Your task to perform on an android device: What's the news in Venezuela? Image 0: 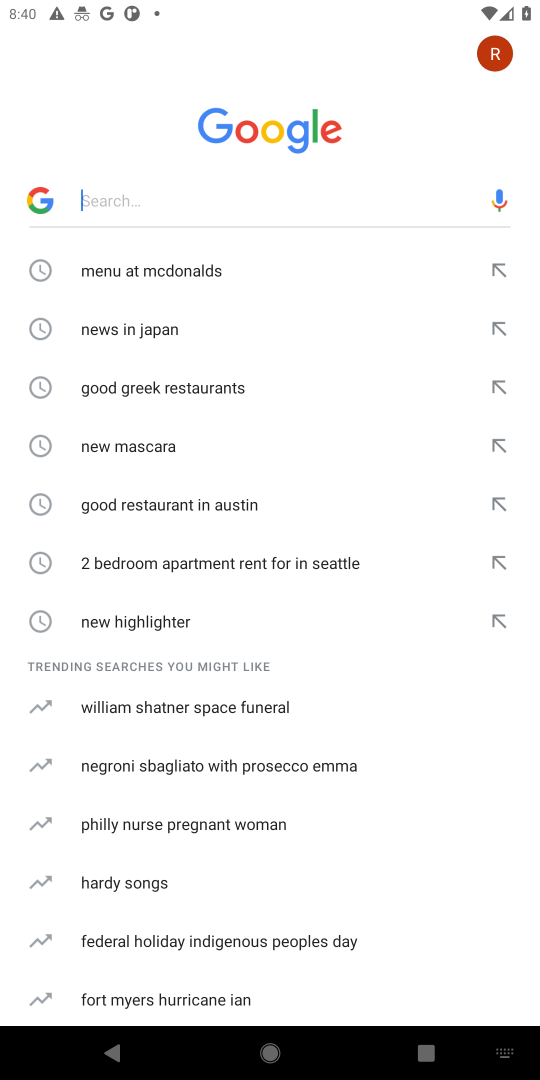
Step 0: press home button
Your task to perform on an android device: What's the news in Venezuela? Image 1: 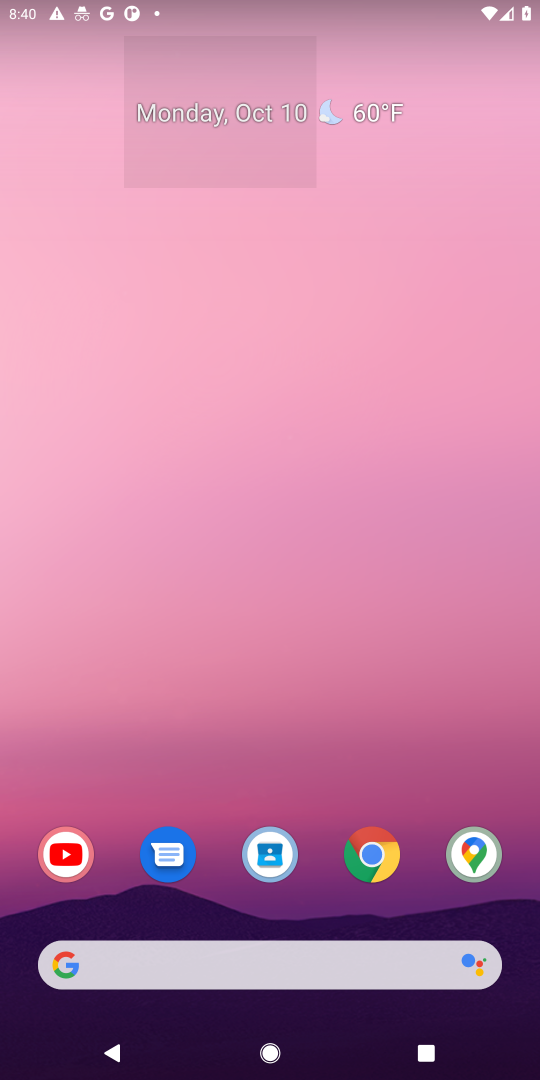
Step 1: click (372, 851)
Your task to perform on an android device: What's the news in Venezuela? Image 2: 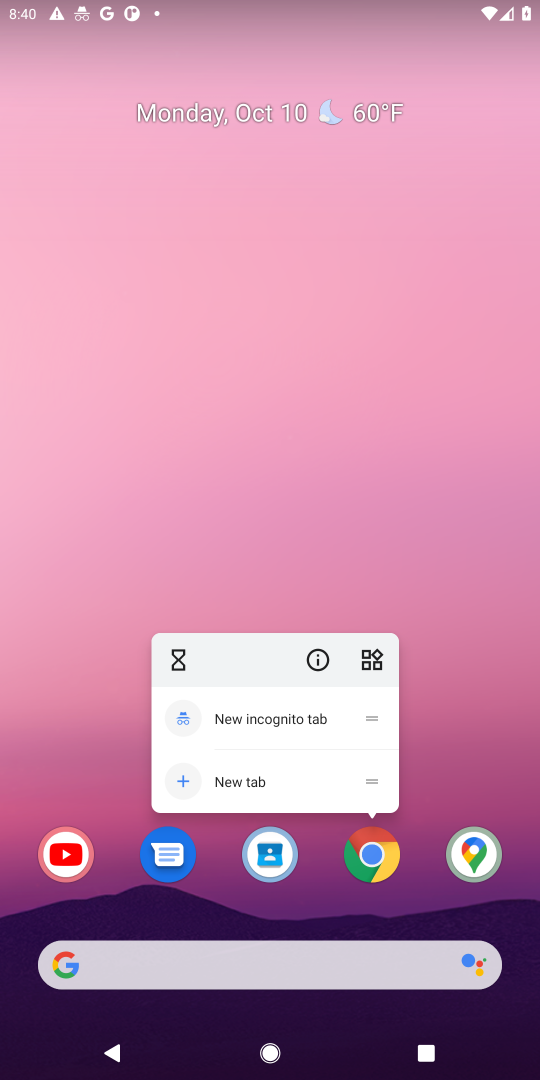
Step 2: click (372, 851)
Your task to perform on an android device: What's the news in Venezuela? Image 3: 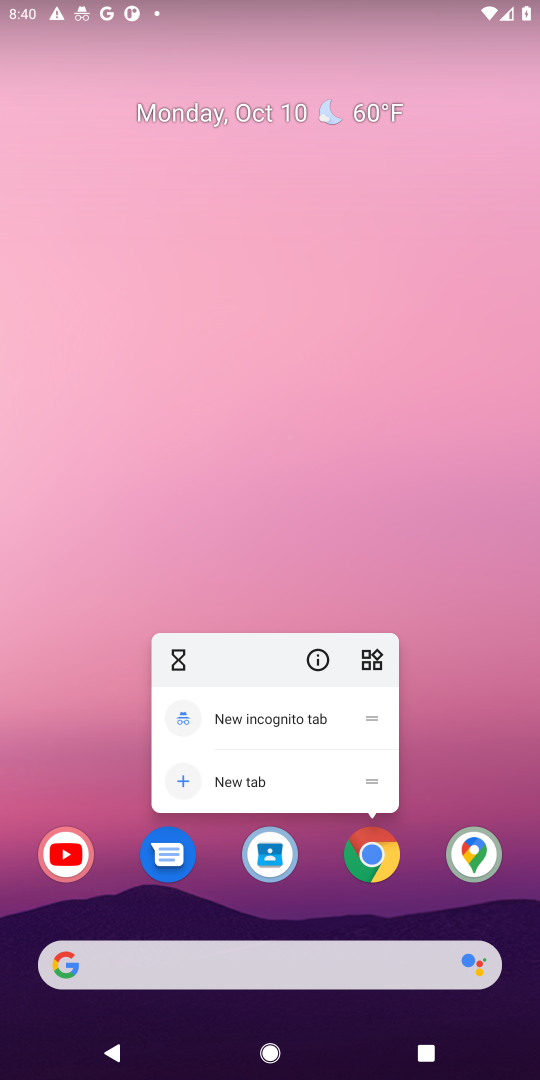
Step 3: click (374, 847)
Your task to perform on an android device: What's the news in Venezuela? Image 4: 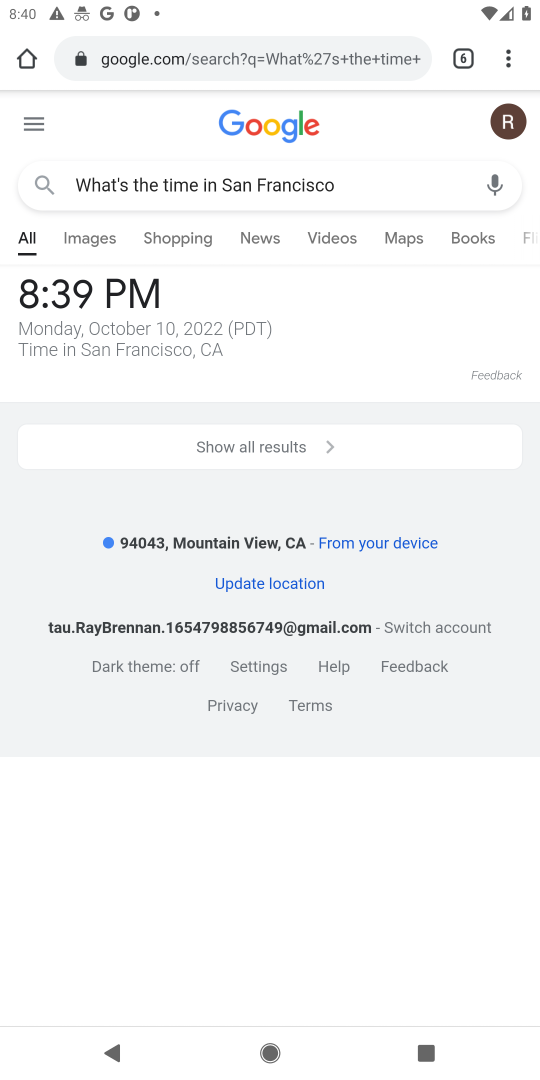
Step 4: click (239, 60)
Your task to perform on an android device: What's the news in Venezuela? Image 5: 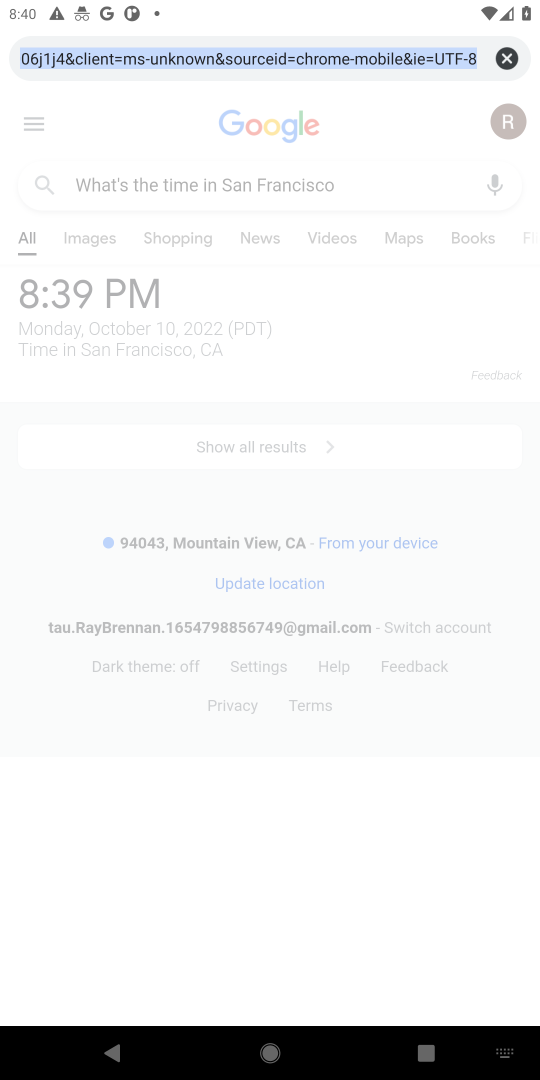
Step 5: click (508, 49)
Your task to perform on an android device: What's the news in Venezuela? Image 6: 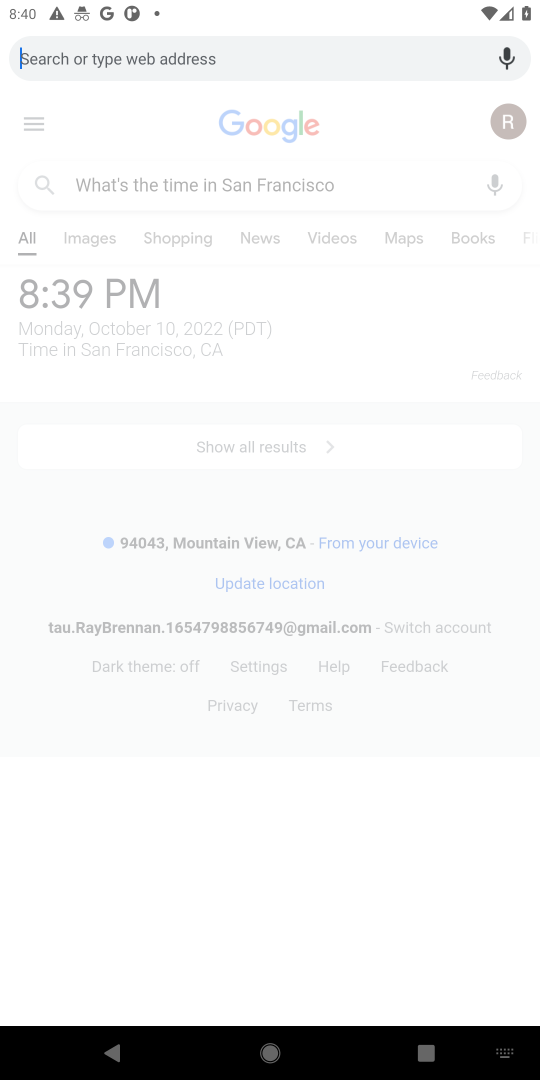
Step 6: type "the news in Venezuela"
Your task to perform on an android device: What's the news in Venezuela? Image 7: 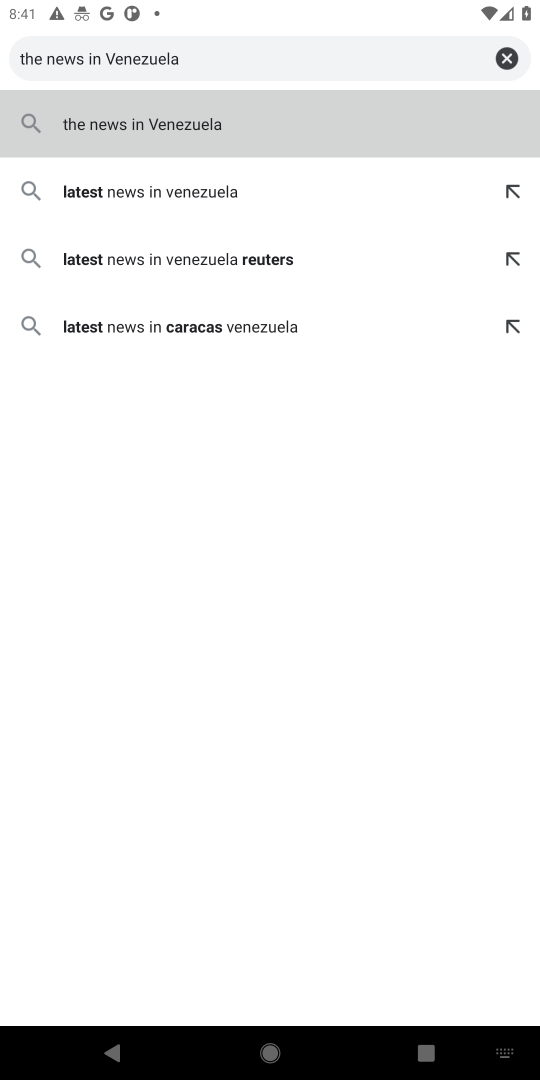
Step 7: press enter
Your task to perform on an android device: What's the news in Venezuela? Image 8: 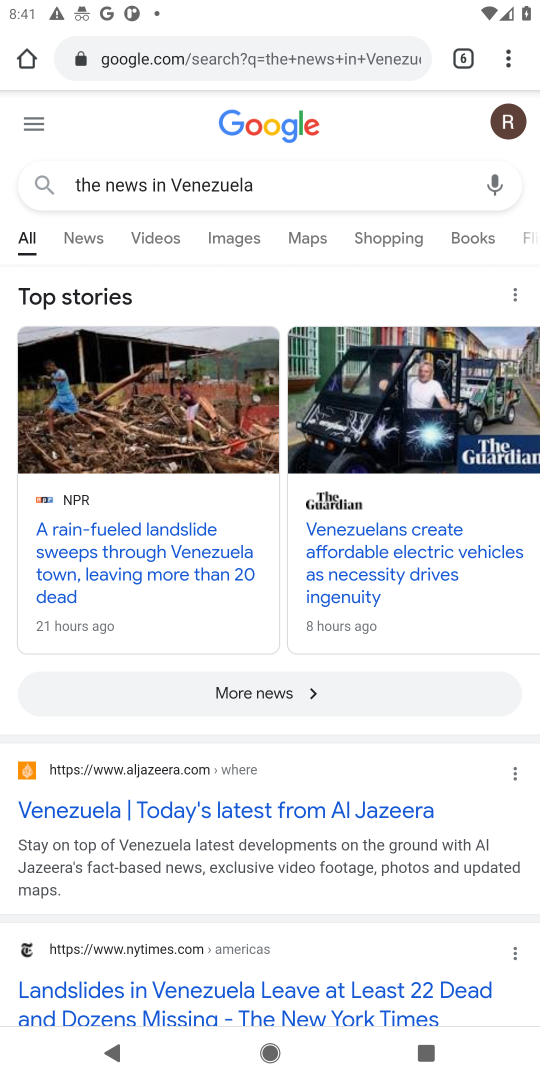
Step 8: click (72, 233)
Your task to perform on an android device: What's the news in Venezuela? Image 9: 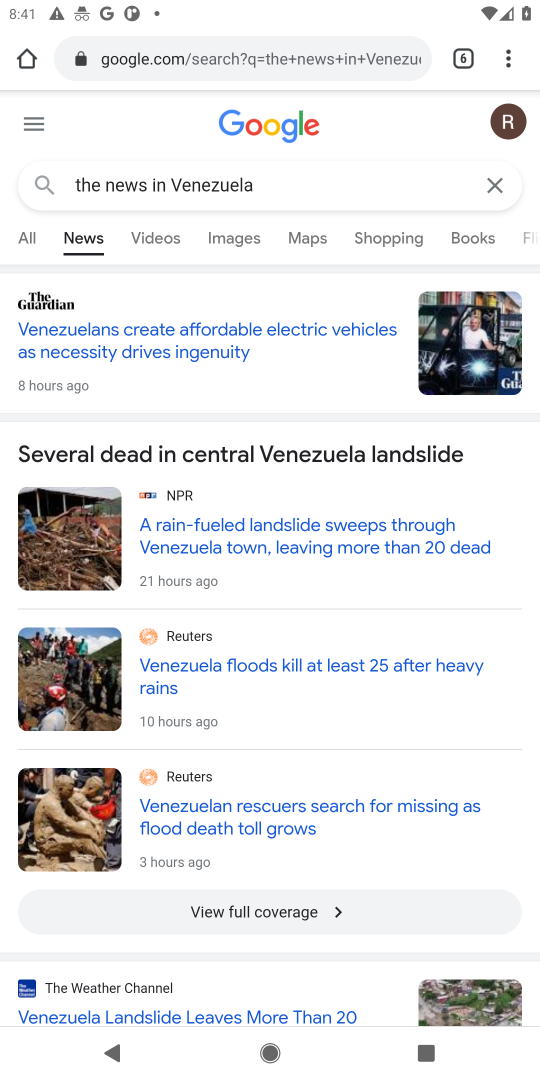
Step 9: task complete